Your task to perform on an android device: Search for a runner rug on Crate & Barrel. Image 0: 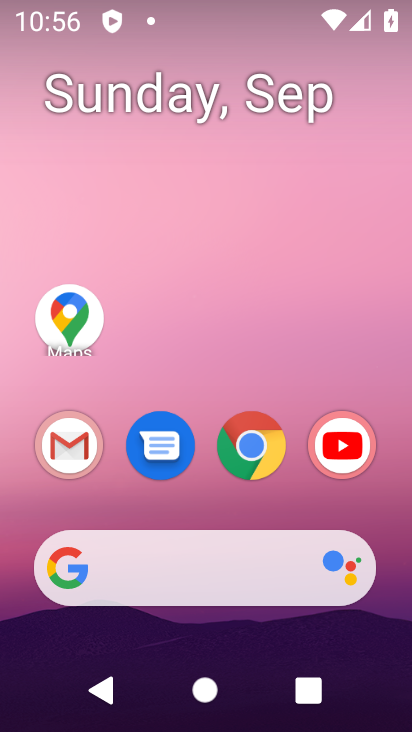
Step 0: drag from (402, 267) to (391, 30)
Your task to perform on an android device: Search for a runner rug on Crate & Barrel. Image 1: 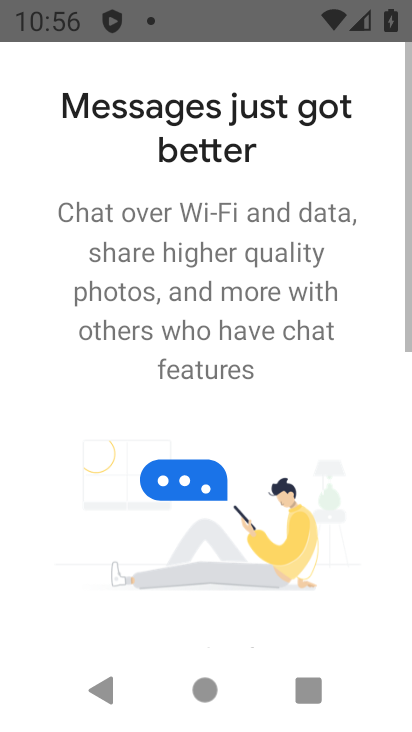
Step 1: press back button
Your task to perform on an android device: Search for a runner rug on Crate & Barrel. Image 2: 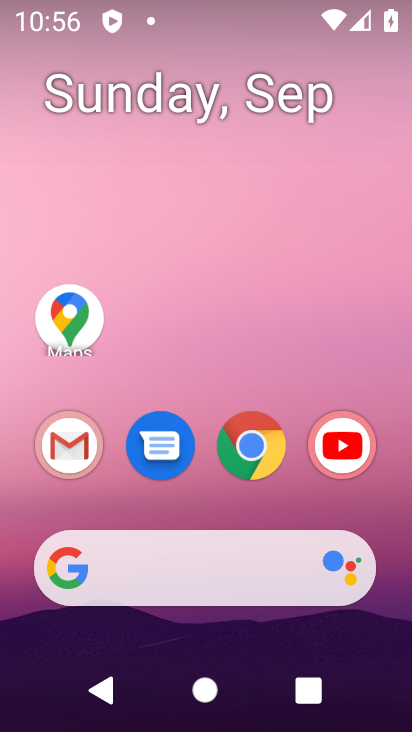
Step 2: drag from (293, 270) to (323, 189)
Your task to perform on an android device: Search for a runner rug on Crate & Barrel. Image 3: 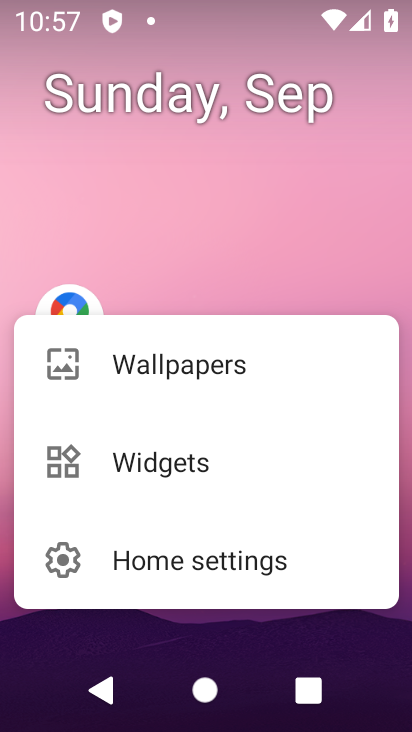
Step 3: click (283, 290)
Your task to perform on an android device: Search for a runner rug on Crate & Barrel. Image 4: 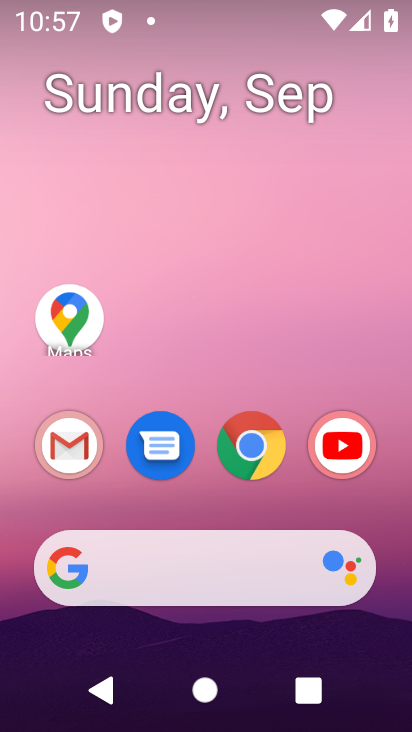
Step 4: click (243, 473)
Your task to perform on an android device: Search for a runner rug on Crate & Barrel. Image 5: 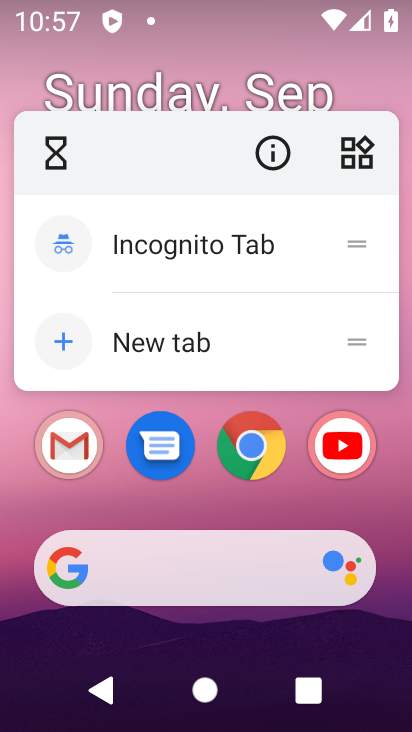
Step 5: click (257, 450)
Your task to perform on an android device: Search for a runner rug on Crate & Barrel. Image 6: 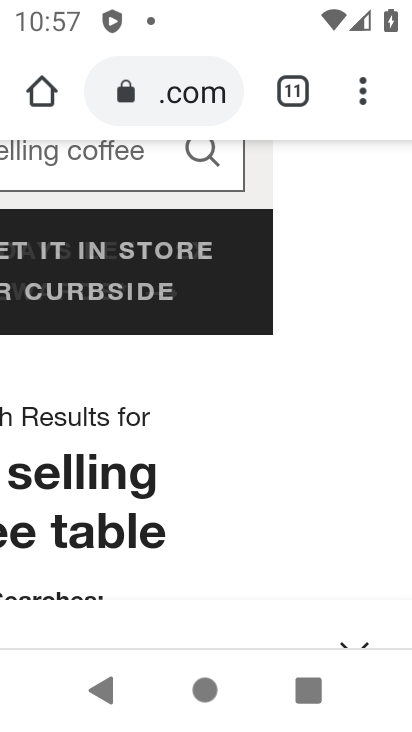
Step 6: click (191, 102)
Your task to perform on an android device: Search for a runner rug on Crate & Barrel. Image 7: 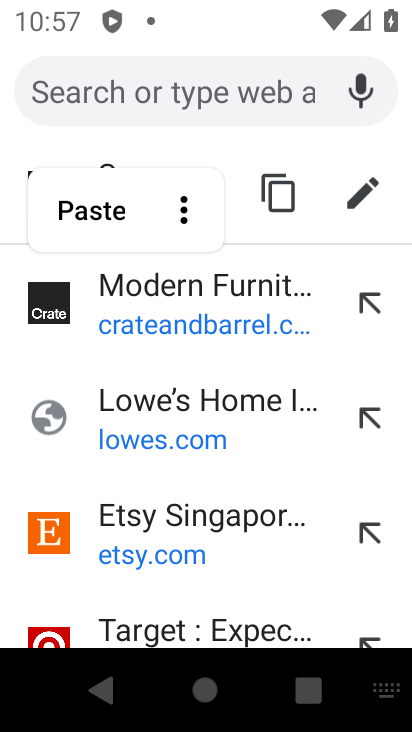
Step 7: click (236, 323)
Your task to perform on an android device: Search for a runner rug on Crate & Barrel. Image 8: 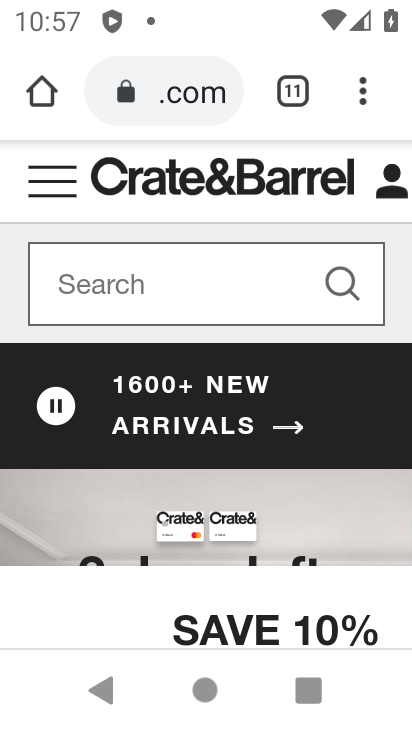
Step 8: click (217, 272)
Your task to perform on an android device: Search for a runner rug on Crate & Barrel. Image 9: 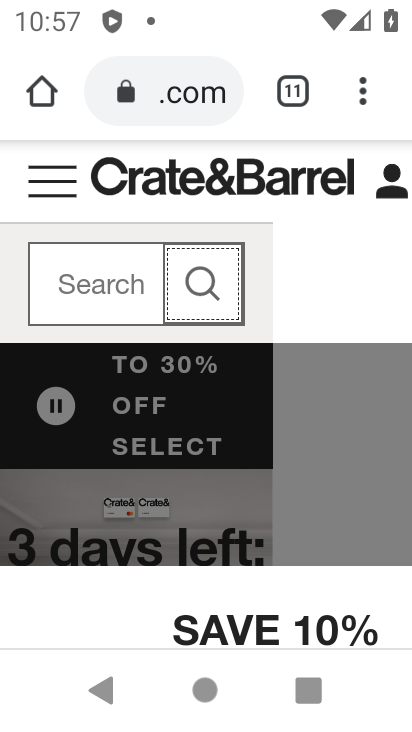
Step 9: press enter
Your task to perform on an android device: Search for a runner rug on Crate & Barrel. Image 10: 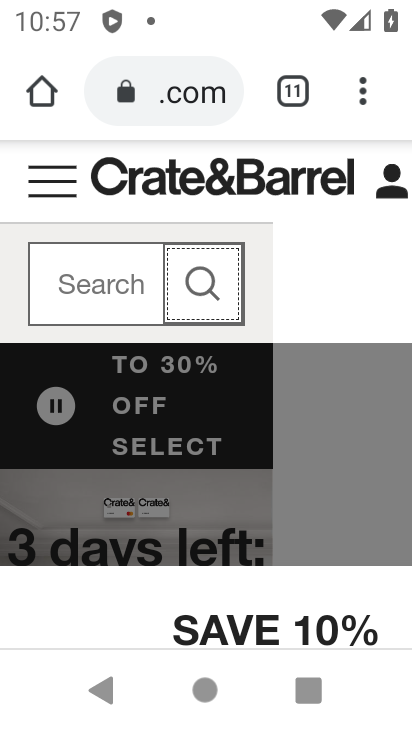
Step 10: type "runner rug"
Your task to perform on an android device: Search for a runner rug on Crate & Barrel. Image 11: 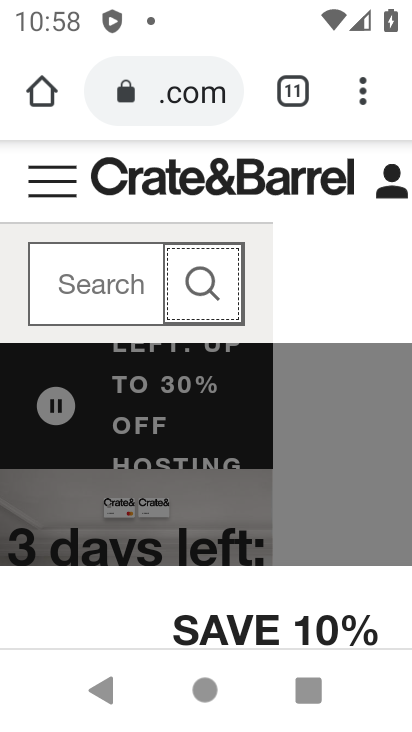
Step 11: click (92, 297)
Your task to perform on an android device: Search for a runner rug on Crate & Barrel. Image 12: 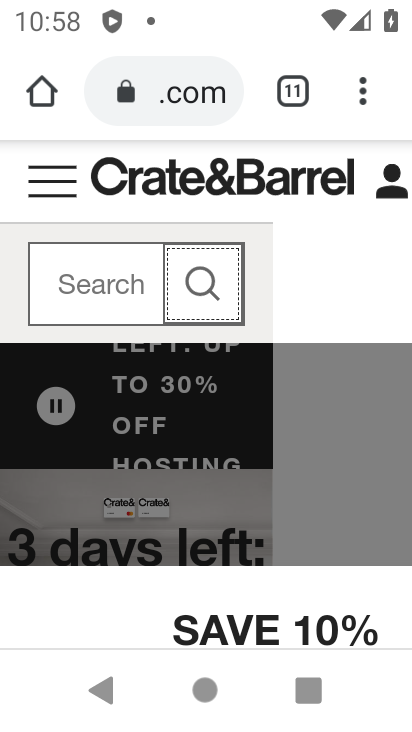
Step 12: click (93, 280)
Your task to perform on an android device: Search for a runner rug on Crate & Barrel. Image 13: 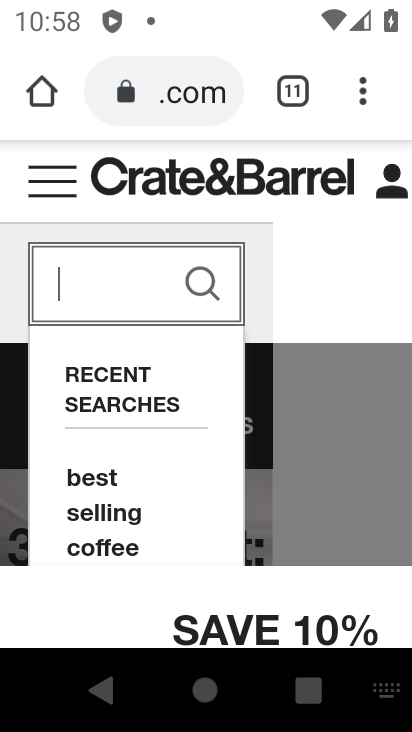
Step 13: type "runner rug"
Your task to perform on an android device: Search for a runner rug on Crate & Barrel. Image 14: 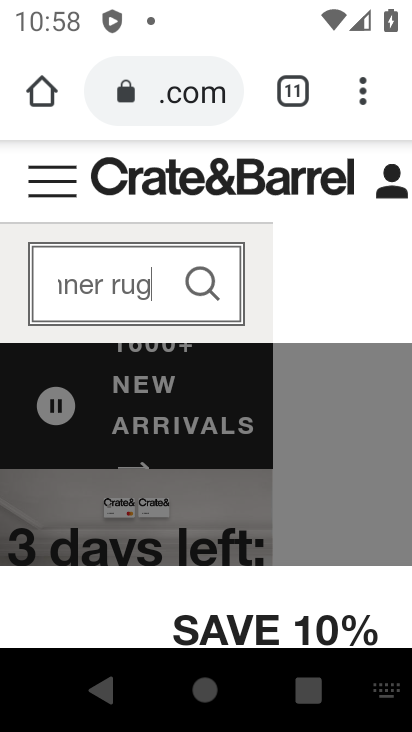
Step 14: press enter
Your task to perform on an android device: Search for a runner rug on Crate & Barrel. Image 15: 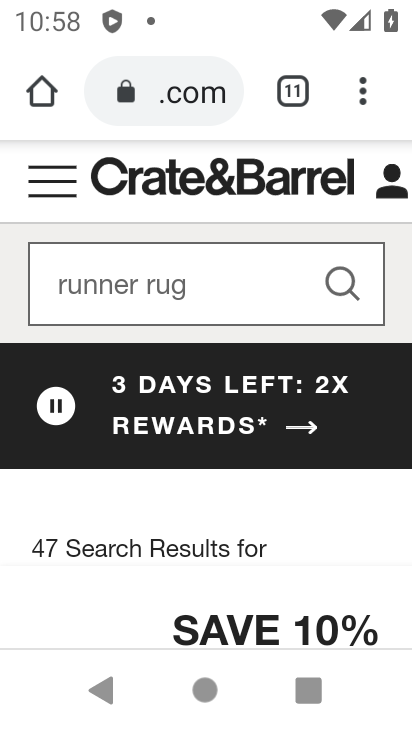
Step 15: drag from (341, 561) to (250, 183)
Your task to perform on an android device: Search for a runner rug on Crate & Barrel. Image 16: 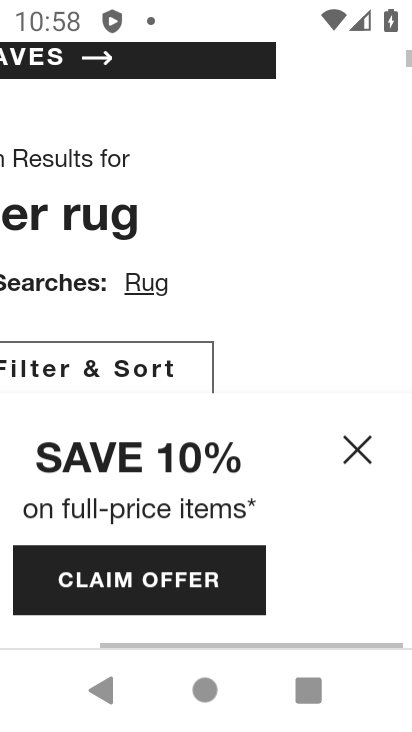
Step 16: drag from (237, 541) to (408, 223)
Your task to perform on an android device: Search for a runner rug on Crate & Barrel. Image 17: 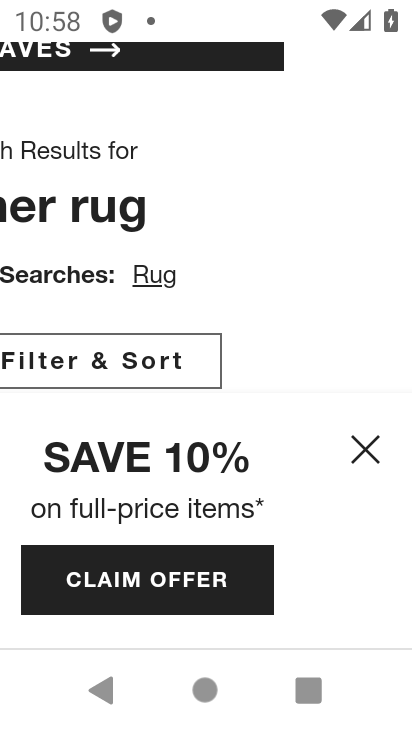
Step 17: drag from (204, 592) to (271, 195)
Your task to perform on an android device: Search for a runner rug on Crate & Barrel. Image 18: 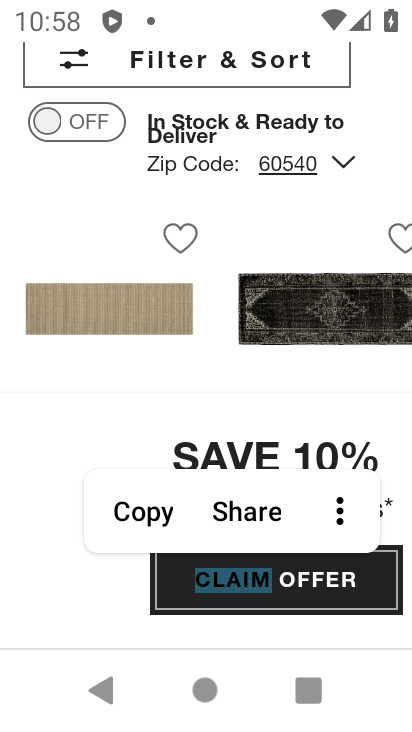
Step 18: click (98, 550)
Your task to perform on an android device: Search for a runner rug on Crate & Barrel. Image 19: 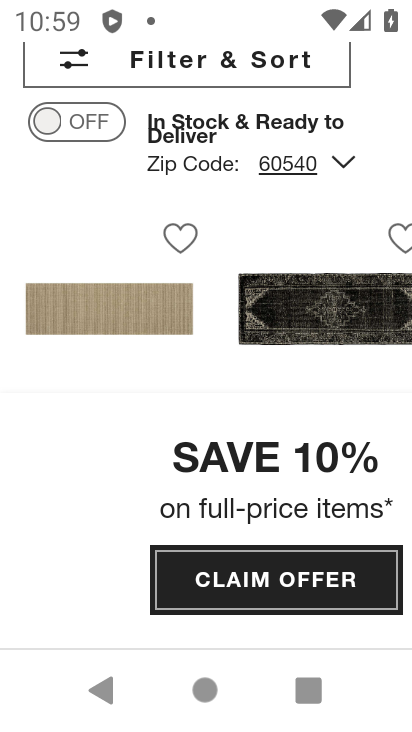
Step 19: drag from (109, 454) to (181, 144)
Your task to perform on an android device: Search for a runner rug on Crate & Barrel. Image 20: 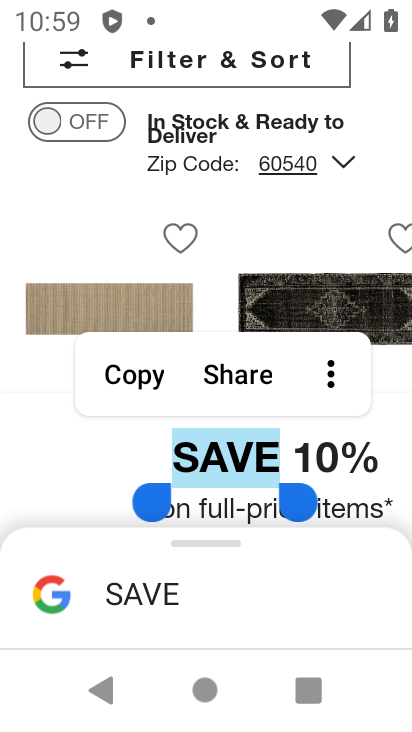
Step 20: click (99, 196)
Your task to perform on an android device: Search for a runner rug on Crate & Barrel. Image 21: 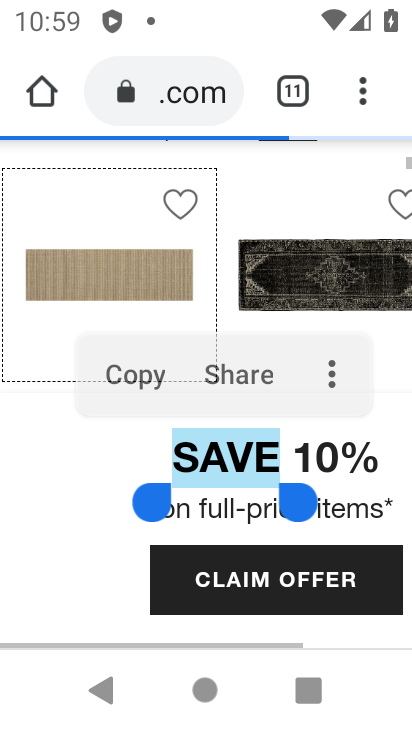
Step 21: click (63, 450)
Your task to perform on an android device: Search for a runner rug on Crate & Barrel. Image 22: 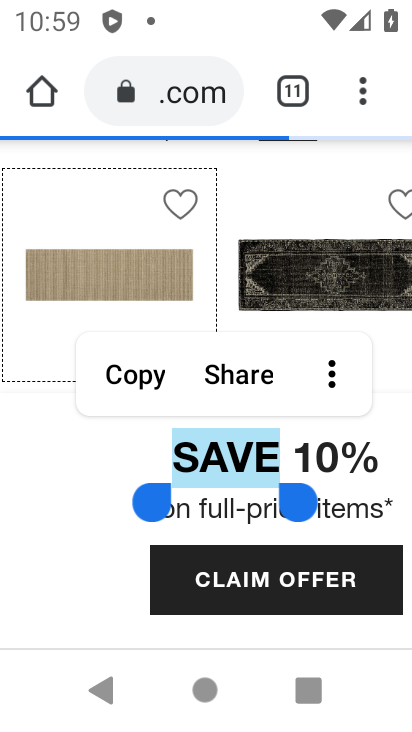
Step 22: click (180, 468)
Your task to perform on an android device: Search for a runner rug on Crate & Barrel. Image 23: 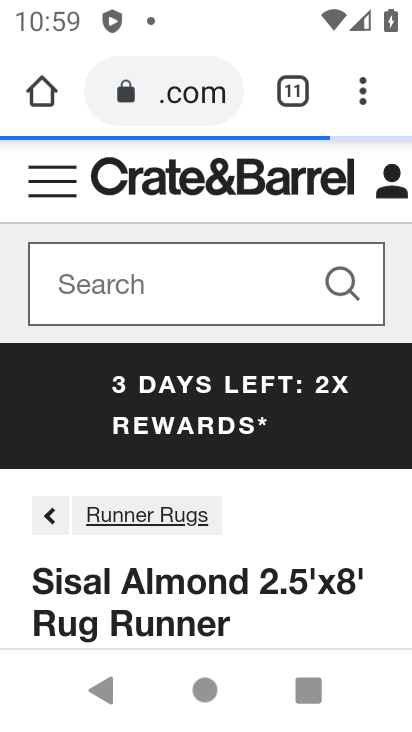
Step 23: drag from (127, 568) to (242, 187)
Your task to perform on an android device: Search for a runner rug on Crate & Barrel. Image 24: 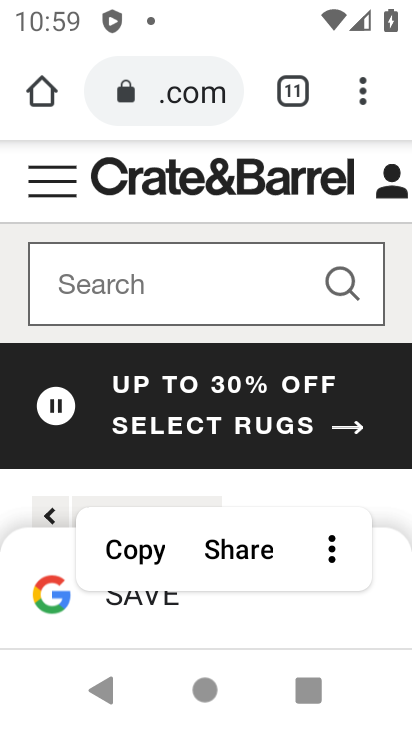
Step 24: drag from (410, 231) to (407, 140)
Your task to perform on an android device: Search for a runner rug on Crate & Barrel. Image 25: 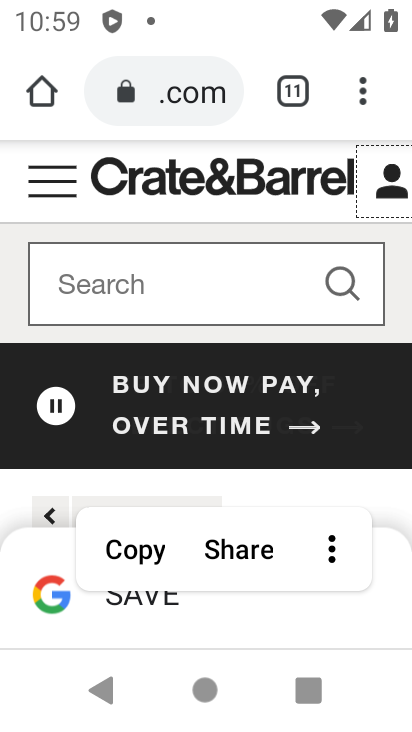
Step 25: click (1, 503)
Your task to perform on an android device: Search for a runner rug on Crate & Barrel. Image 26: 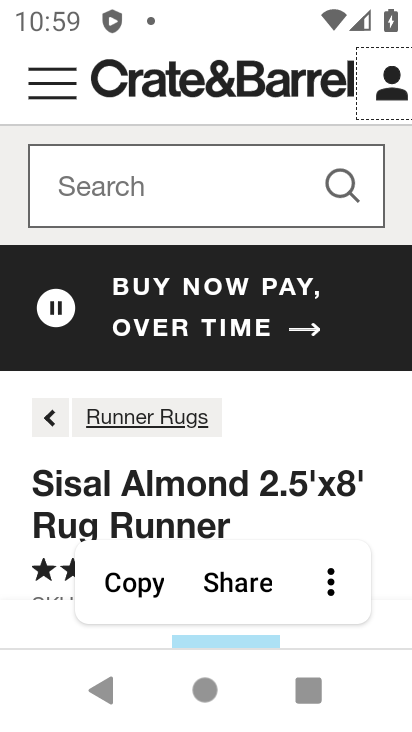
Step 26: drag from (69, 526) to (122, 242)
Your task to perform on an android device: Search for a runner rug on Crate & Barrel. Image 27: 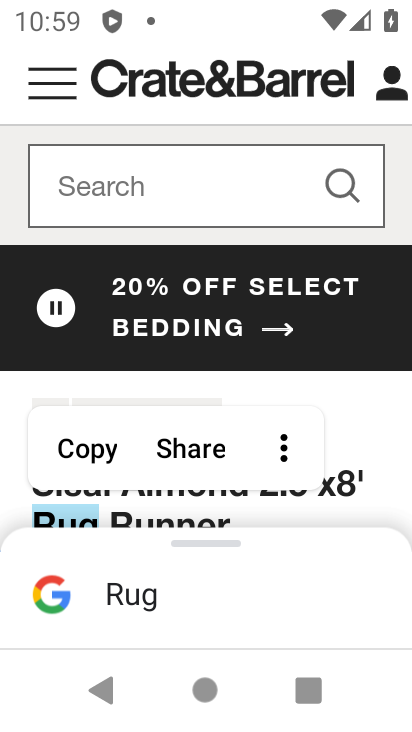
Step 27: press back button
Your task to perform on an android device: Search for a runner rug on Crate & Barrel. Image 28: 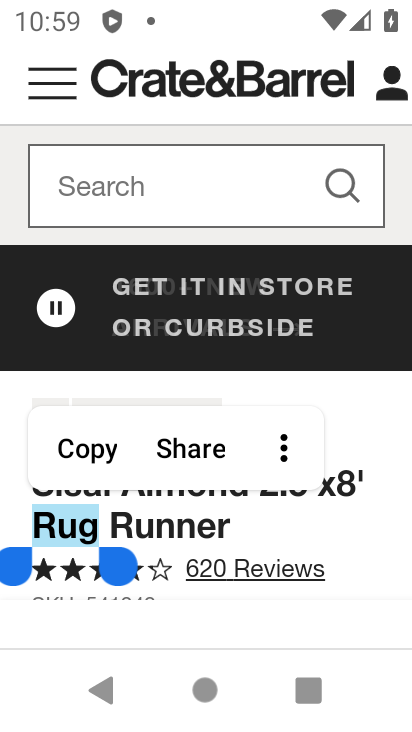
Step 28: drag from (386, 464) to (411, 167)
Your task to perform on an android device: Search for a runner rug on Crate & Barrel. Image 29: 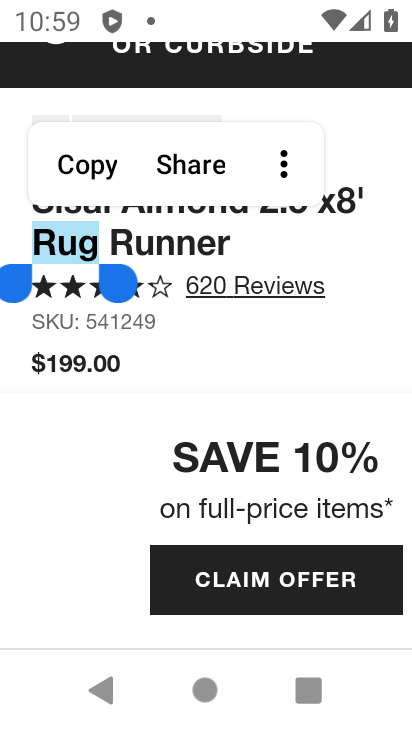
Step 29: click (367, 88)
Your task to perform on an android device: Search for a runner rug on Crate & Barrel. Image 30: 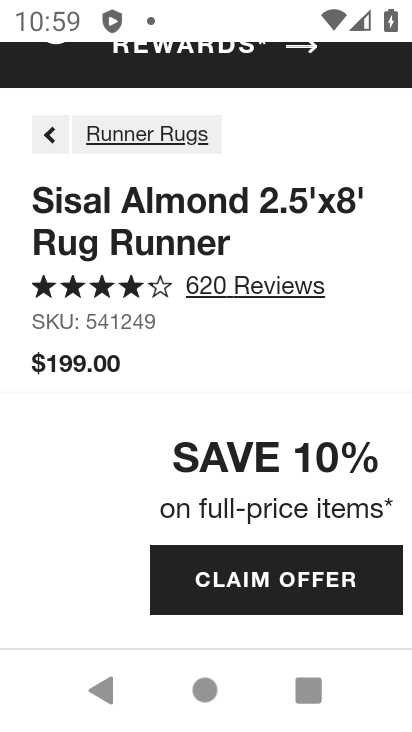
Step 30: click (102, 136)
Your task to perform on an android device: Search for a runner rug on Crate & Barrel. Image 31: 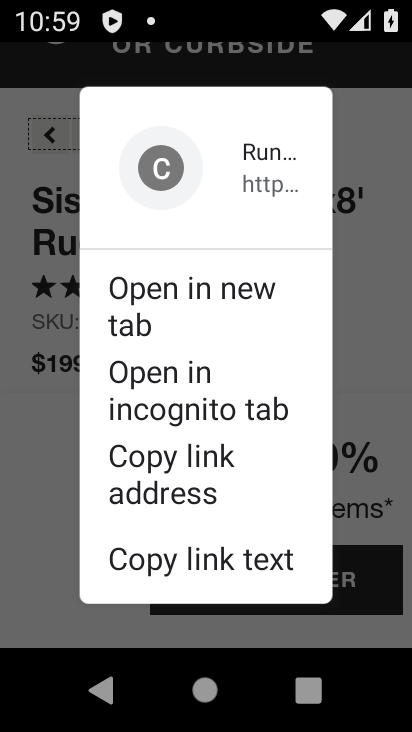
Step 31: task complete